Your task to perform on an android device: change the clock display to digital Image 0: 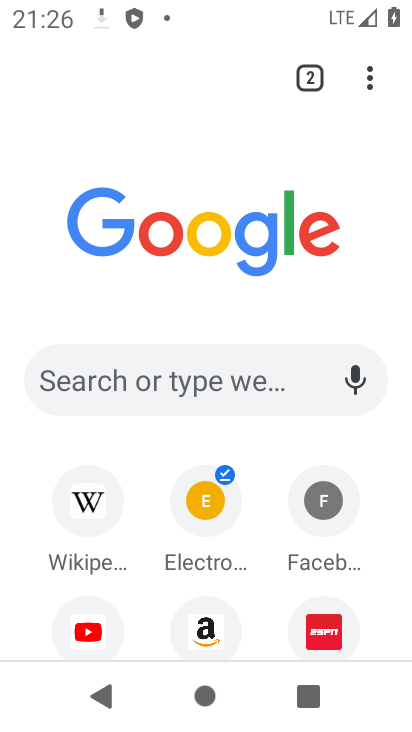
Step 0: press back button
Your task to perform on an android device: change the clock display to digital Image 1: 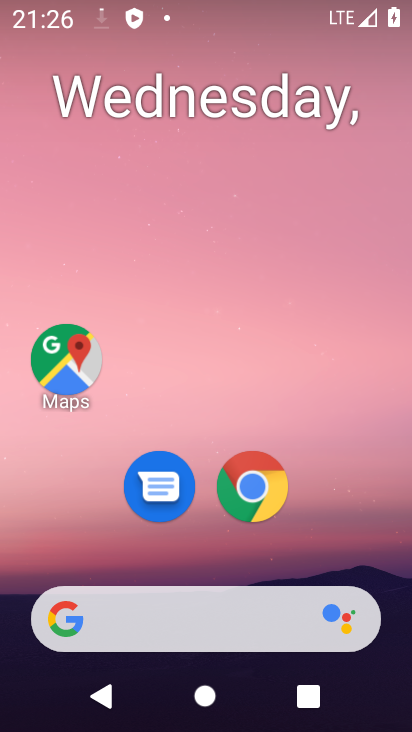
Step 1: drag from (234, 563) to (284, 3)
Your task to perform on an android device: change the clock display to digital Image 2: 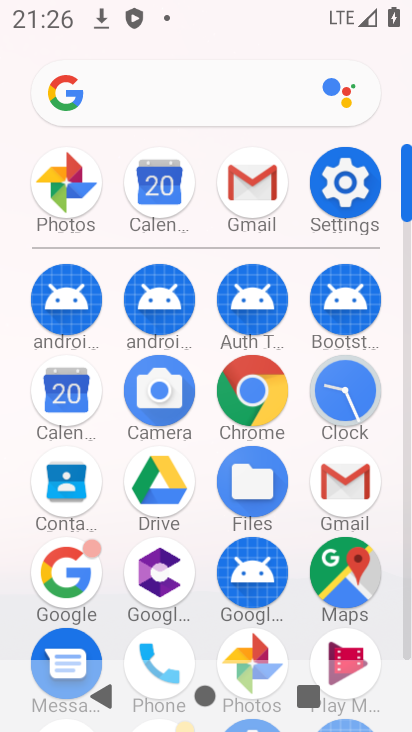
Step 2: click (346, 384)
Your task to perform on an android device: change the clock display to digital Image 3: 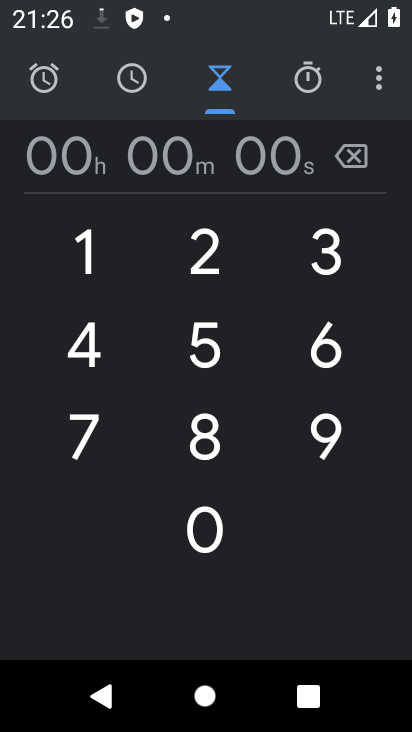
Step 3: click (384, 74)
Your task to perform on an android device: change the clock display to digital Image 4: 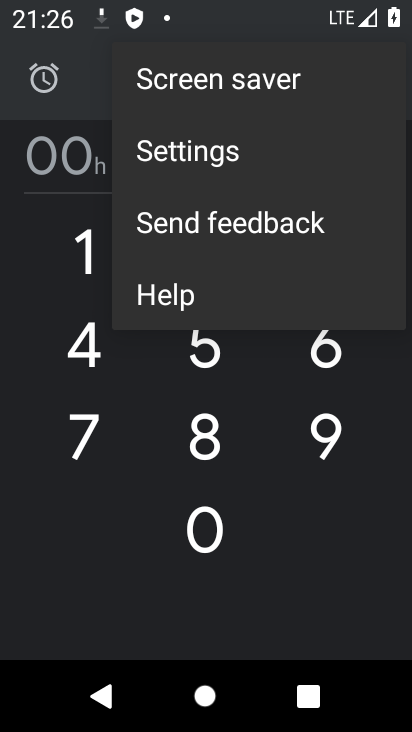
Step 4: click (204, 150)
Your task to perform on an android device: change the clock display to digital Image 5: 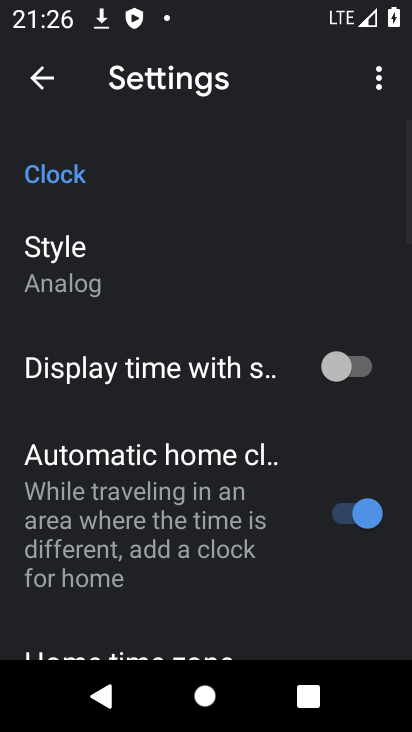
Step 5: click (110, 271)
Your task to perform on an android device: change the clock display to digital Image 6: 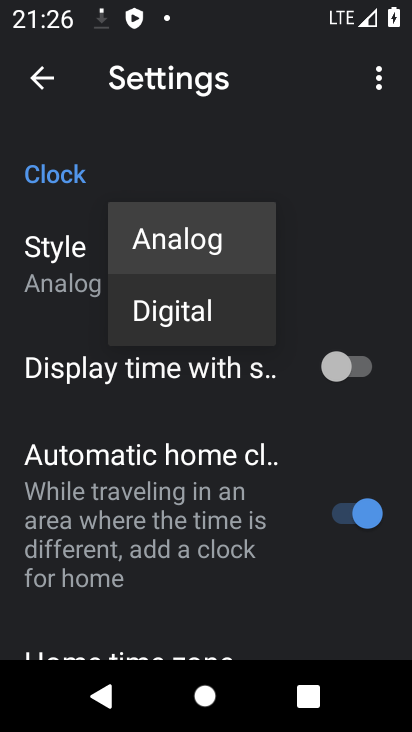
Step 6: click (205, 310)
Your task to perform on an android device: change the clock display to digital Image 7: 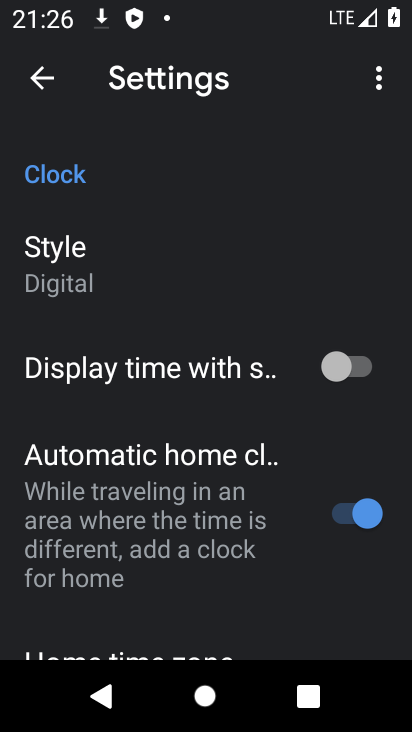
Step 7: task complete